Your task to perform on an android device: uninstall "Google Play Games" Image 0: 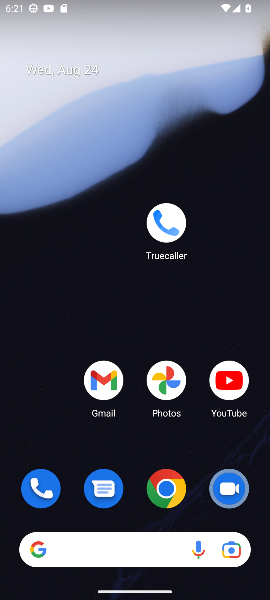
Step 0: drag from (131, 513) to (114, 125)
Your task to perform on an android device: uninstall "Google Play Games" Image 1: 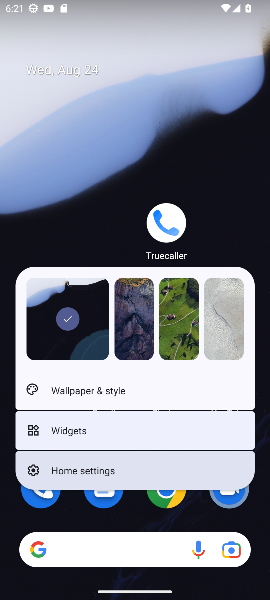
Step 1: drag from (138, 521) to (134, 112)
Your task to perform on an android device: uninstall "Google Play Games" Image 2: 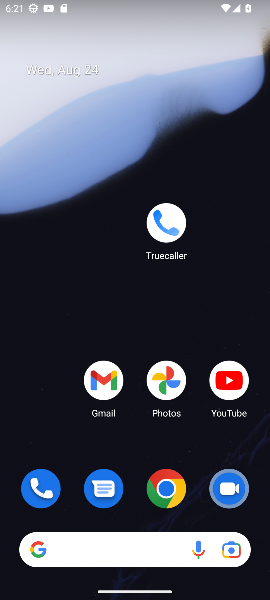
Step 2: drag from (141, 513) to (123, 115)
Your task to perform on an android device: uninstall "Google Play Games" Image 3: 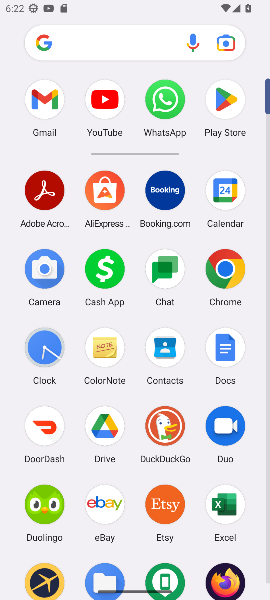
Step 3: click (213, 99)
Your task to perform on an android device: uninstall "Google Play Games" Image 4: 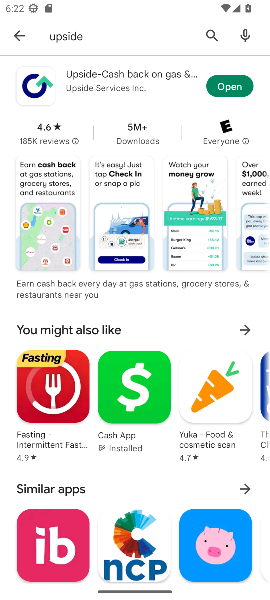
Step 4: click (215, 43)
Your task to perform on an android device: uninstall "Google Play Games" Image 5: 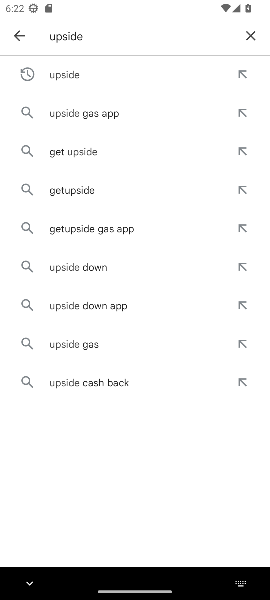
Step 5: click (248, 43)
Your task to perform on an android device: uninstall "Google Play Games" Image 6: 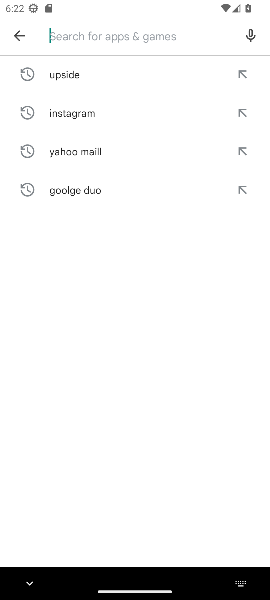
Step 6: type "google play"
Your task to perform on an android device: uninstall "Google Play Games" Image 7: 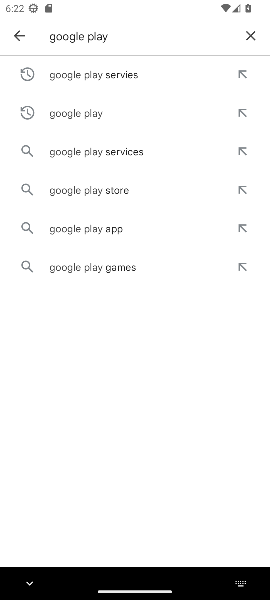
Step 7: click (79, 267)
Your task to perform on an android device: uninstall "Google Play Games" Image 8: 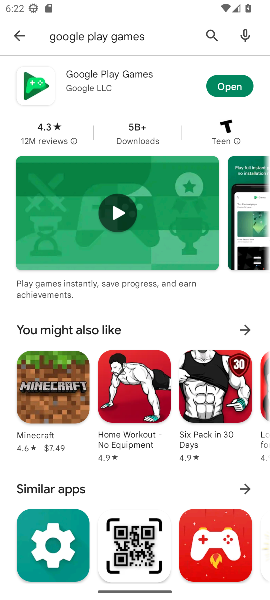
Step 8: click (234, 89)
Your task to perform on an android device: uninstall "Google Play Games" Image 9: 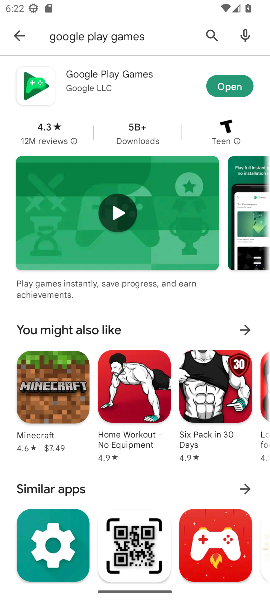
Step 9: task complete